Your task to perform on an android device: Go to notification settings Image 0: 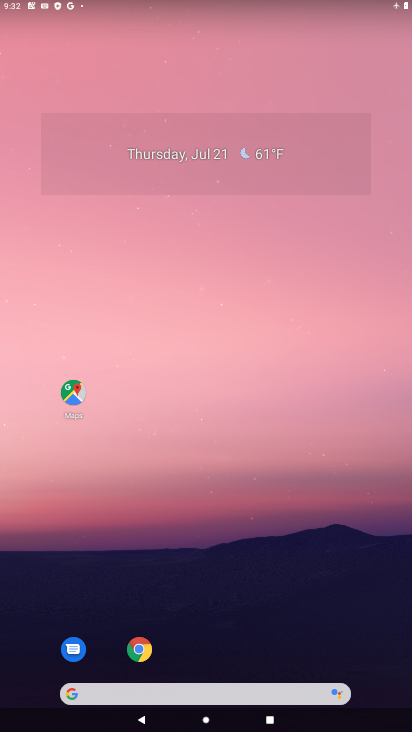
Step 0: drag from (195, 687) to (294, 236)
Your task to perform on an android device: Go to notification settings Image 1: 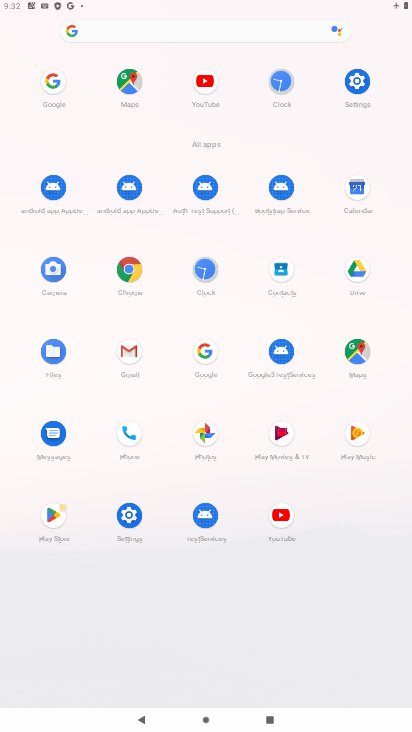
Step 1: click (127, 512)
Your task to perform on an android device: Go to notification settings Image 2: 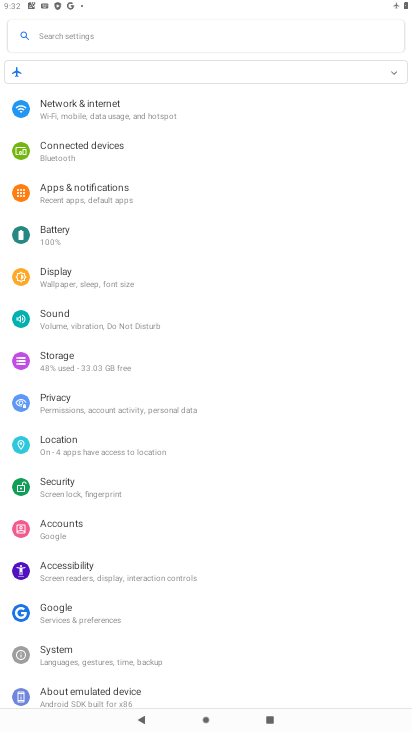
Step 2: click (66, 195)
Your task to perform on an android device: Go to notification settings Image 3: 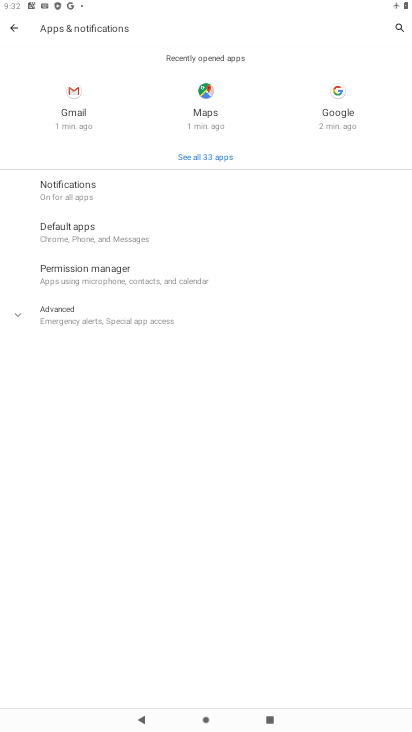
Step 3: click (66, 195)
Your task to perform on an android device: Go to notification settings Image 4: 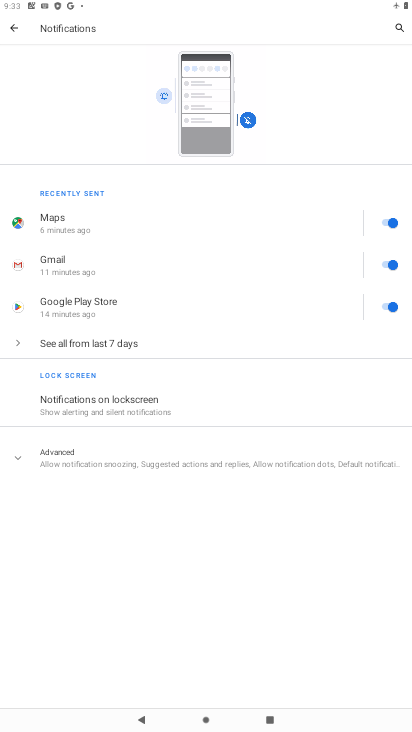
Step 4: task complete